Your task to perform on an android device: check google app version Image 0: 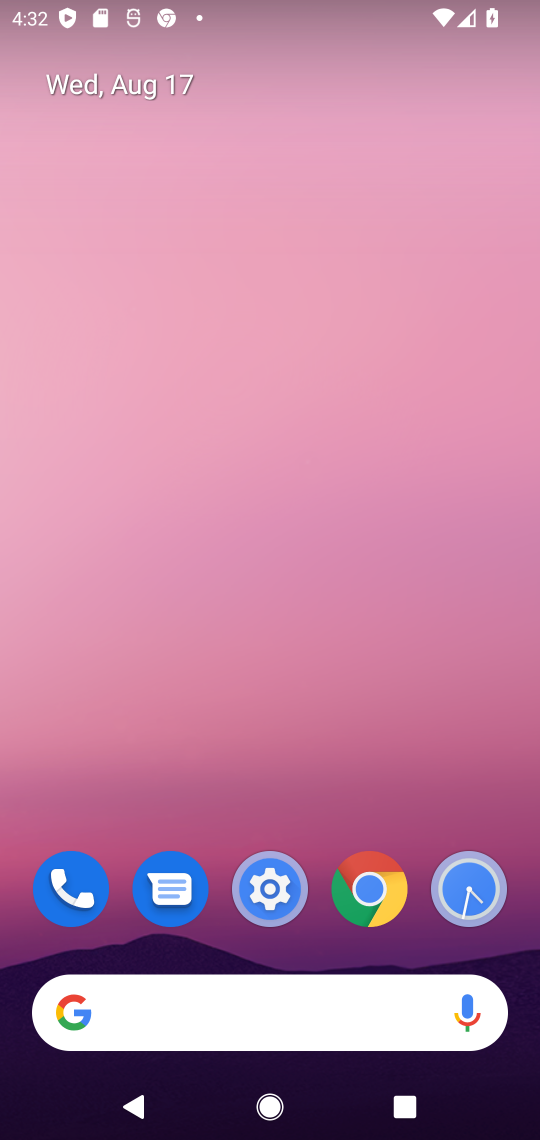
Step 0: drag from (309, 802) to (275, 143)
Your task to perform on an android device: check google app version Image 1: 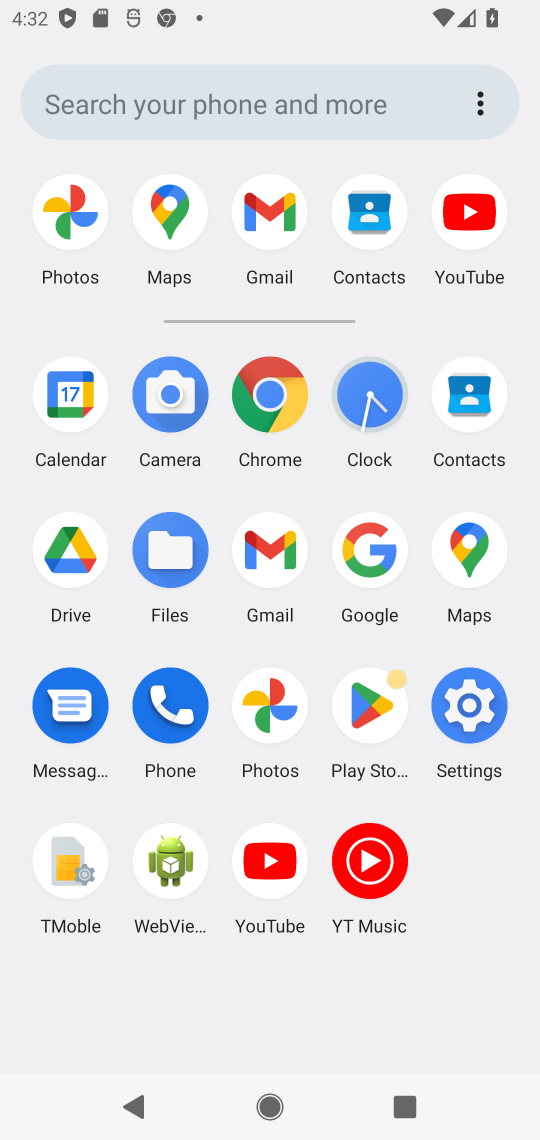
Step 1: click (381, 560)
Your task to perform on an android device: check google app version Image 2: 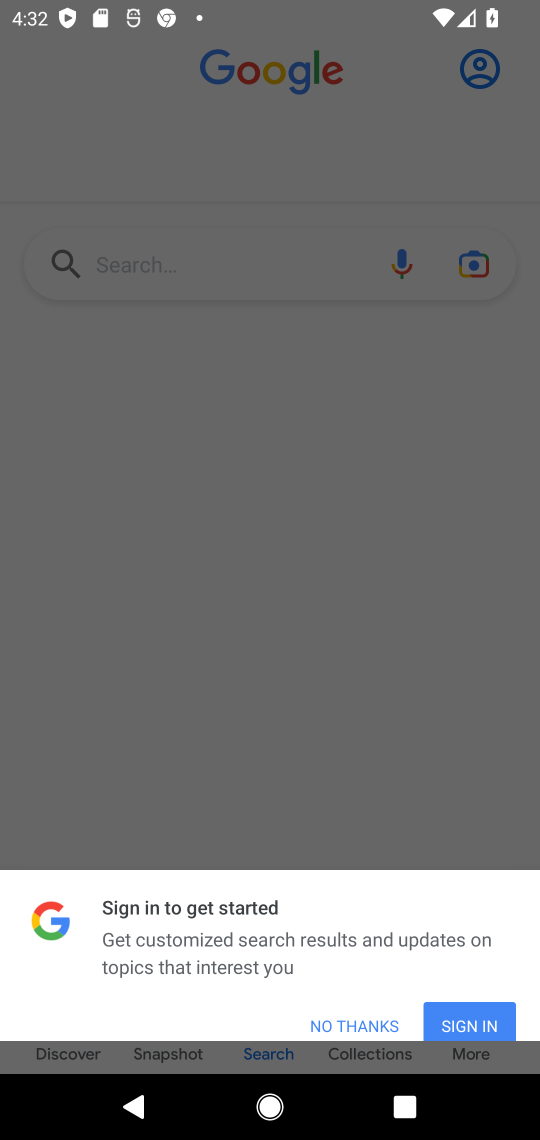
Step 2: click (421, 783)
Your task to perform on an android device: check google app version Image 3: 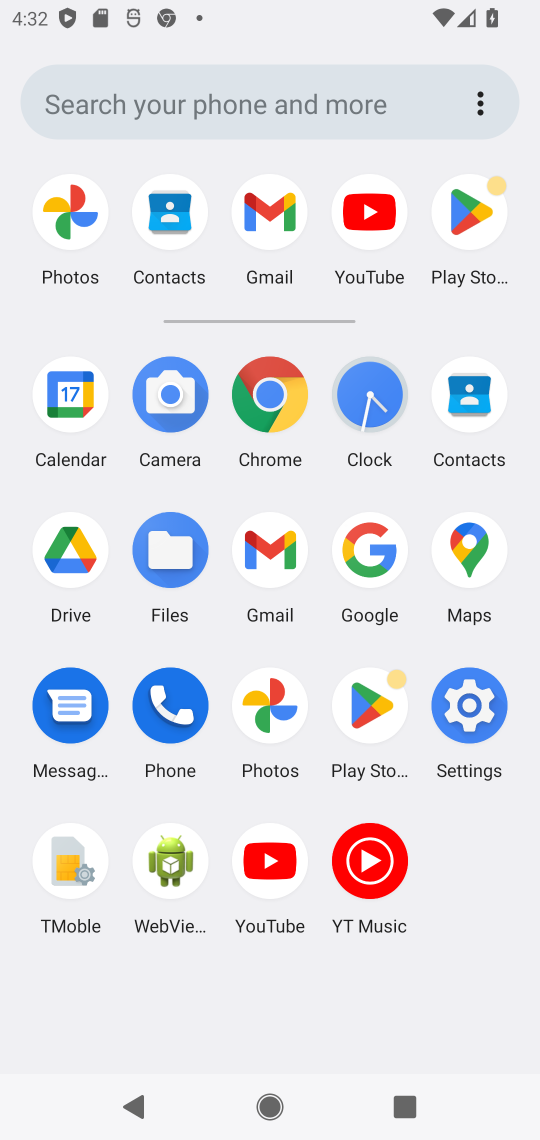
Step 3: click (385, 546)
Your task to perform on an android device: check google app version Image 4: 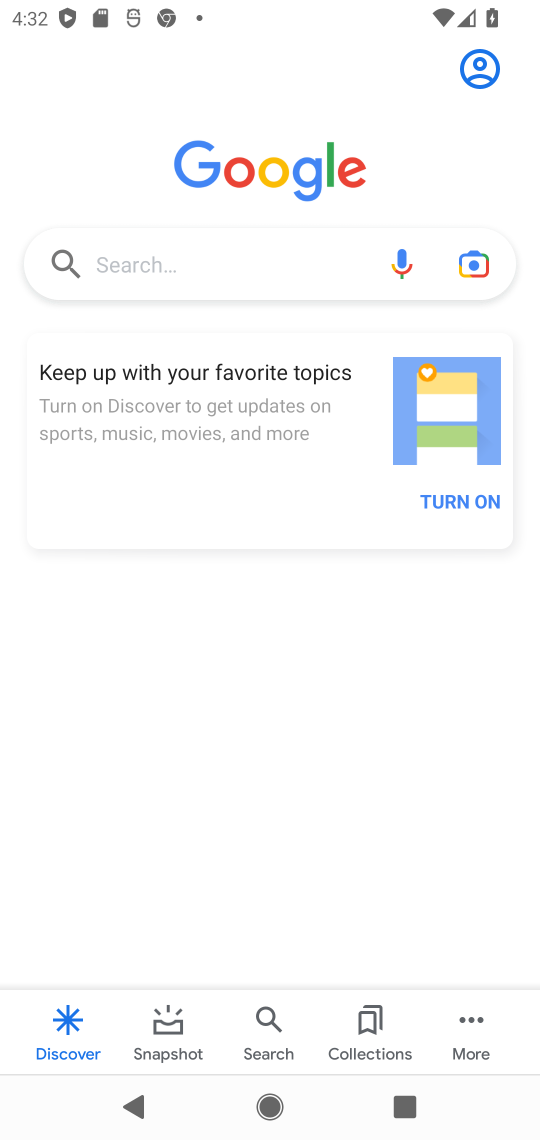
Step 4: click (472, 1010)
Your task to perform on an android device: check google app version Image 5: 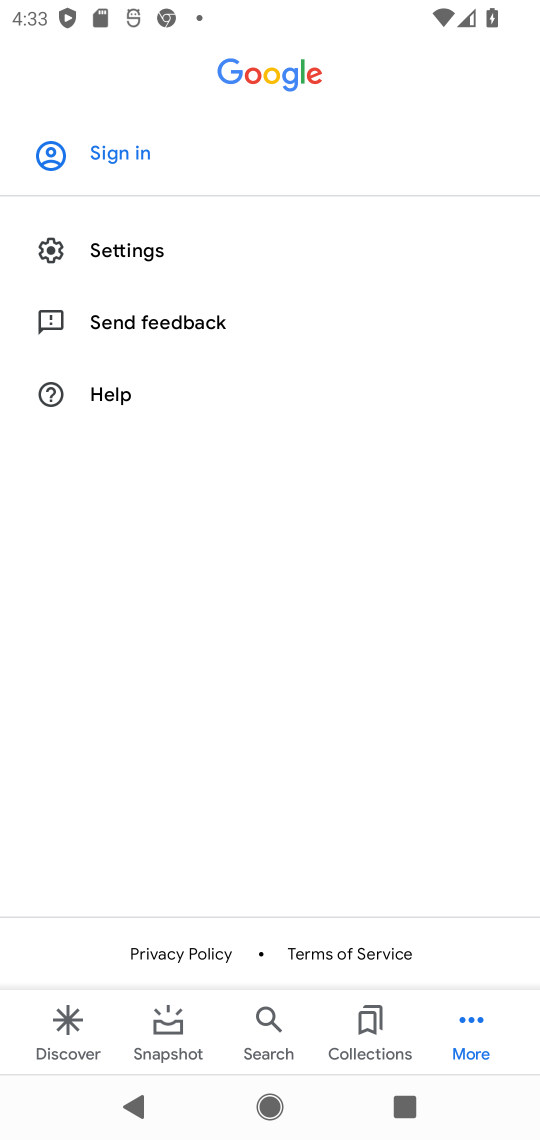
Step 5: click (124, 242)
Your task to perform on an android device: check google app version Image 6: 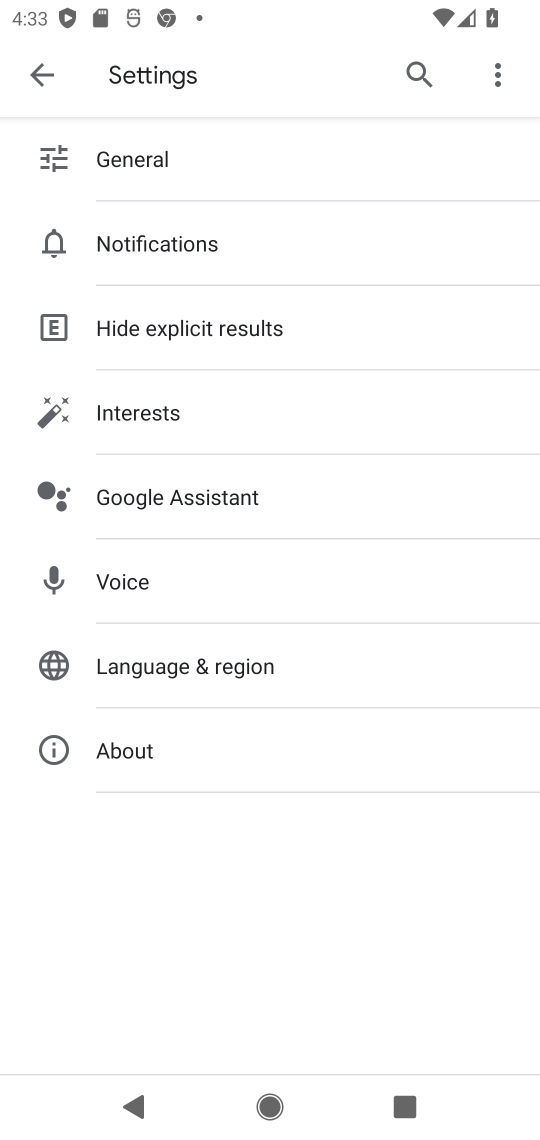
Step 6: click (115, 748)
Your task to perform on an android device: check google app version Image 7: 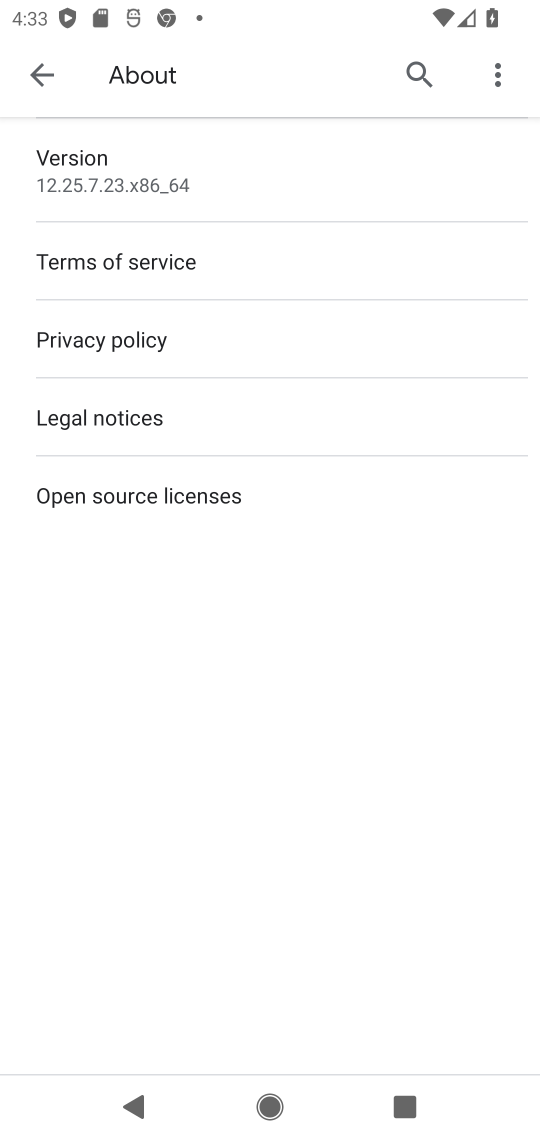
Step 7: task complete